Your task to perform on an android device: toggle notifications settings in the gmail app Image 0: 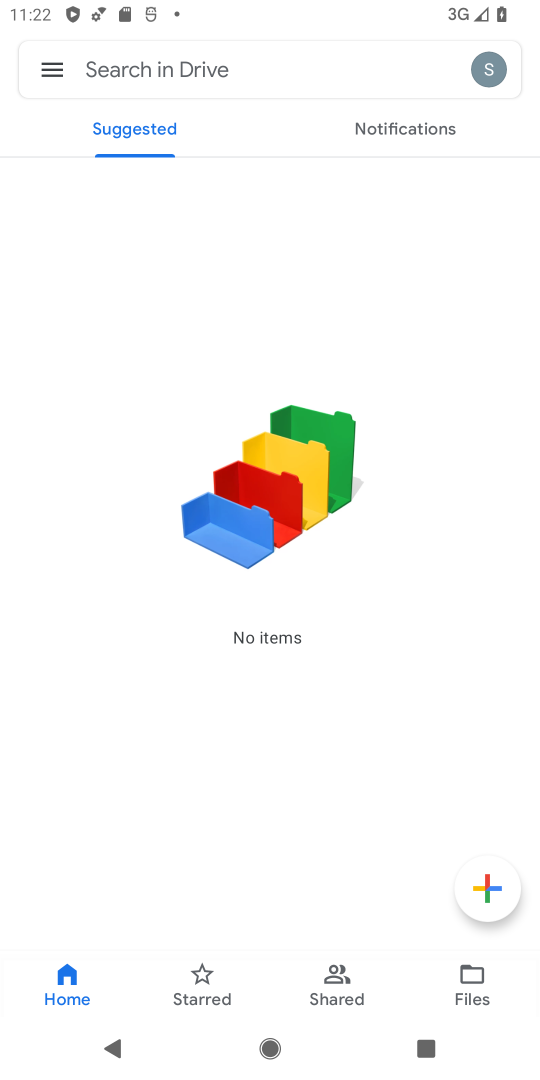
Step 0: press home button
Your task to perform on an android device: toggle notifications settings in the gmail app Image 1: 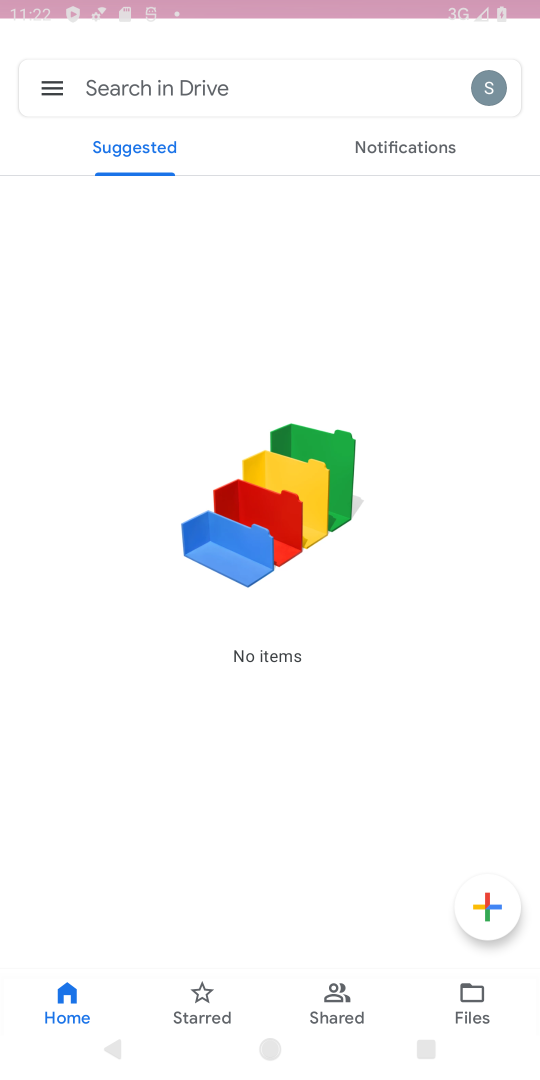
Step 1: drag from (403, 989) to (177, 168)
Your task to perform on an android device: toggle notifications settings in the gmail app Image 2: 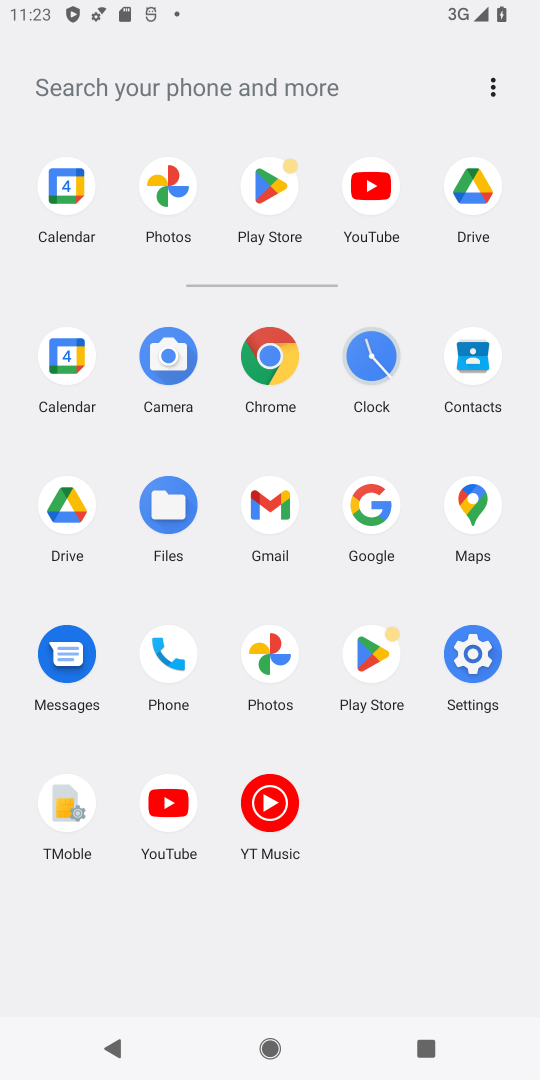
Step 2: click (266, 515)
Your task to perform on an android device: toggle notifications settings in the gmail app Image 3: 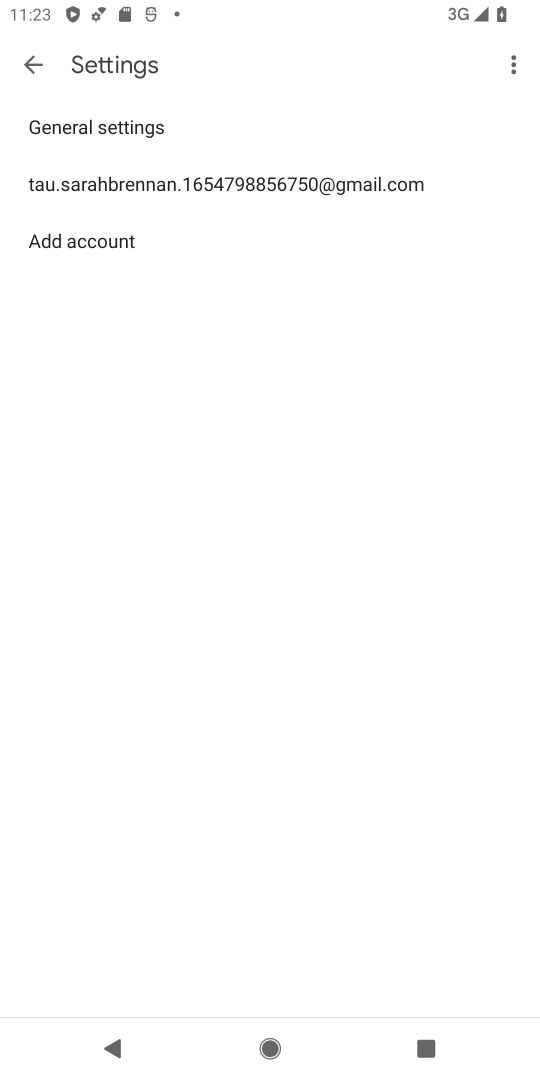
Step 3: click (239, 203)
Your task to perform on an android device: toggle notifications settings in the gmail app Image 4: 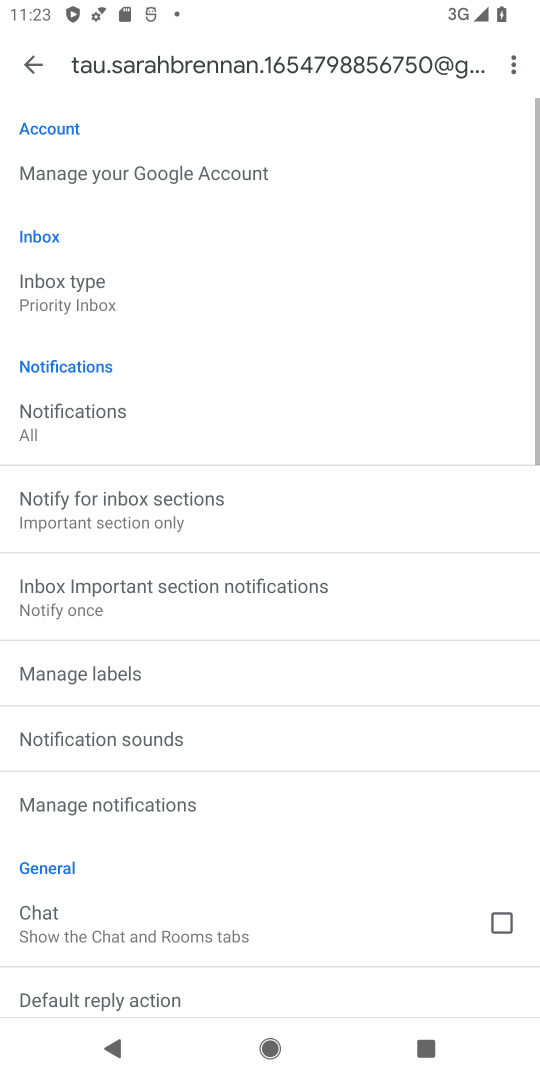
Step 4: click (97, 429)
Your task to perform on an android device: toggle notifications settings in the gmail app Image 5: 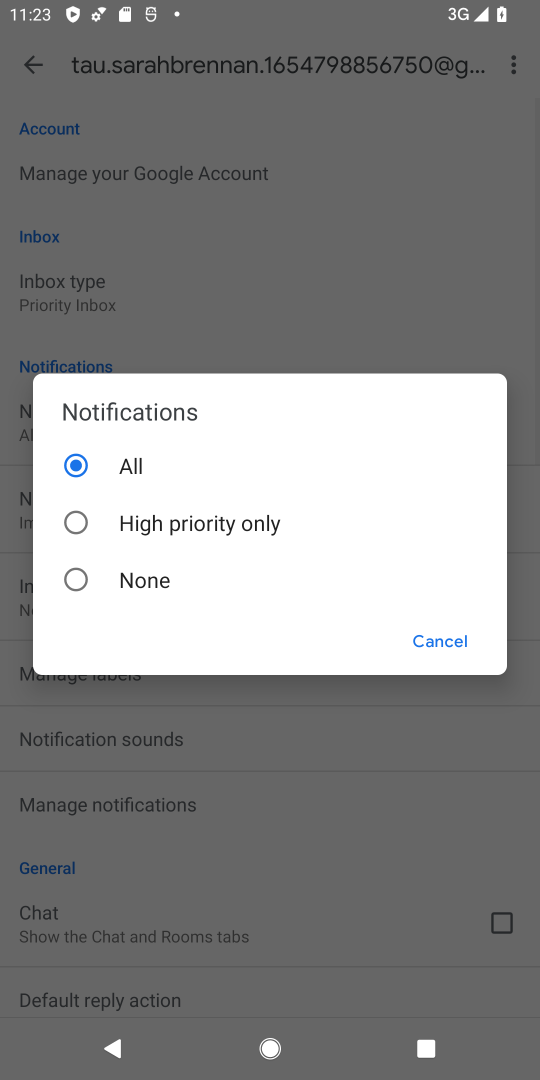
Step 5: click (94, 574)
Your task to perform on an android device: toggle notifications settings in the gmail app Image 6: 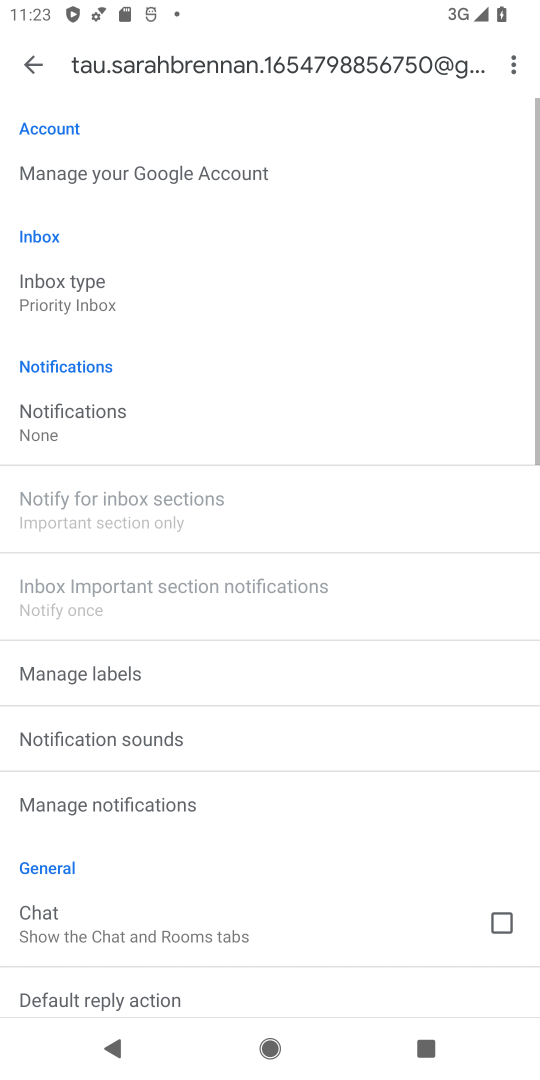
Step 6: task complete